Your task to perform on an android device: turn on notifications settings in the gmail app Image 0: 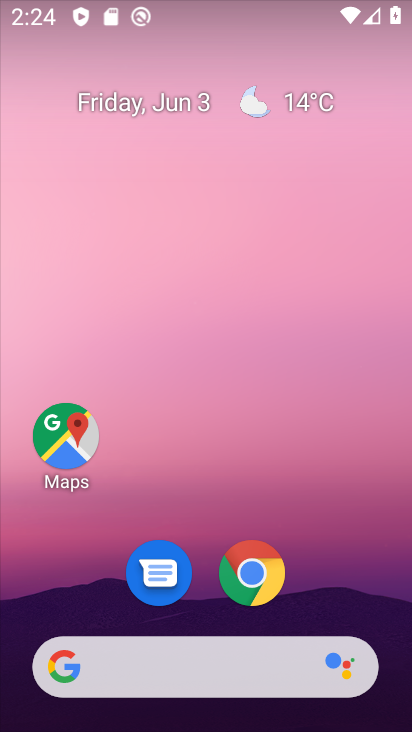
Step 0: drag from (167, 667) to (208, 44)
Your task to perform on an android device: turn on notifications settings in the gmail app Image 1: 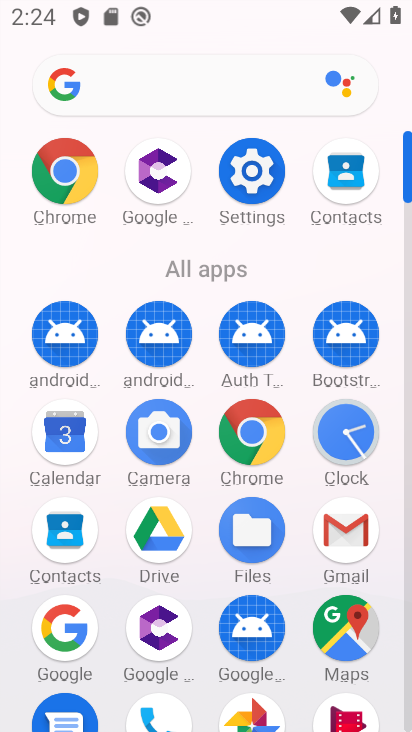
Step 1: click (358, 540)
Your task to perform on an android device: turn on notifications settings in the gmail app Image 2: 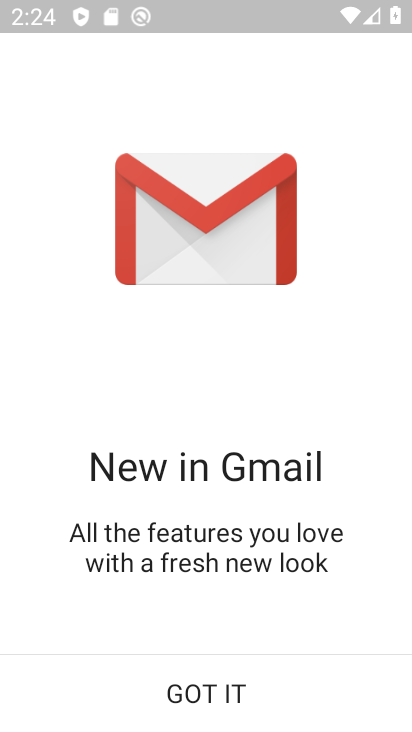
Step 2: click (282, 693)
Your task to perform on an android device: turn on notifications settings in the gmail app Image 3: 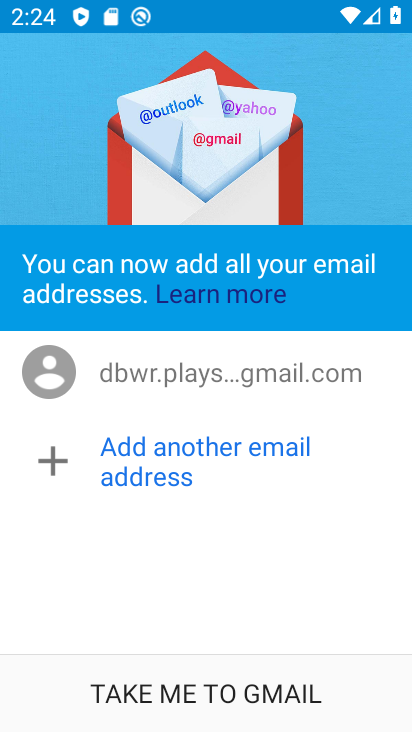
Step 3: click (282, 694)
Your task to perform on an android device: turn on notifications settings in the gmail app Image 4: 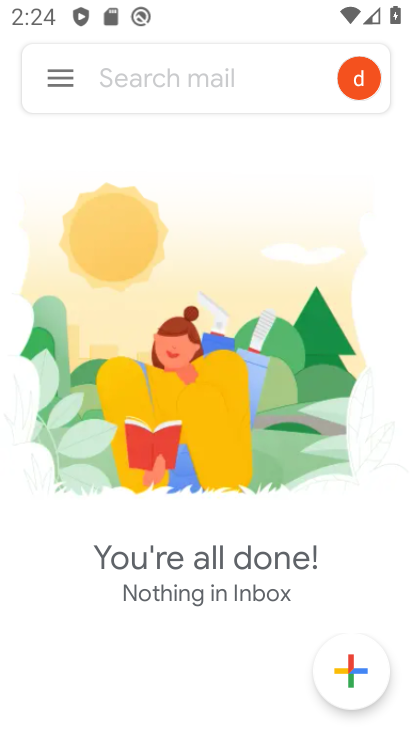
Step 4: click (46, 84)
Your task to perform on an android device: turn on notifications settings in the gmail app Image 5: 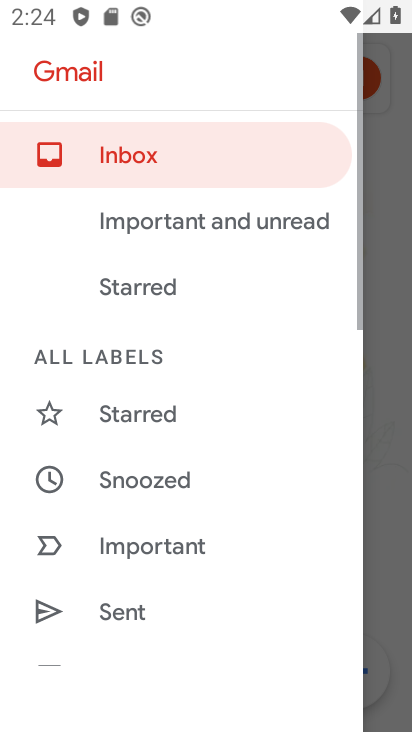
Step 5: drag from (159, 611) to (163, 146)
Your task to perform on an android device: turn on notifications settings in the gmail app Image 6: 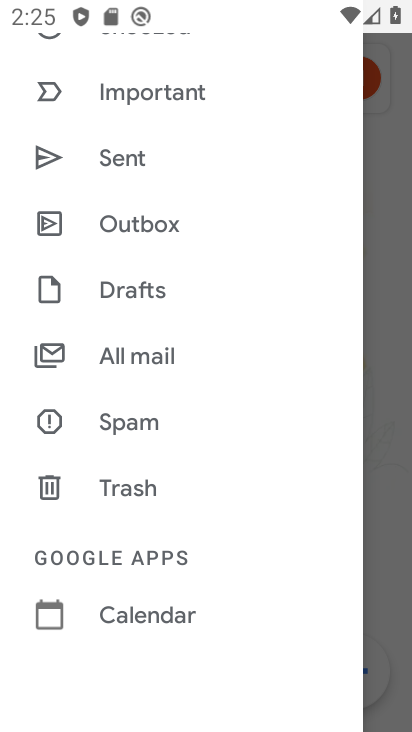
Step 6: drag from (161, 623) to (194, 224)
Your task to perform on an android device: turn on notifications settings in the gmail app Image 7: 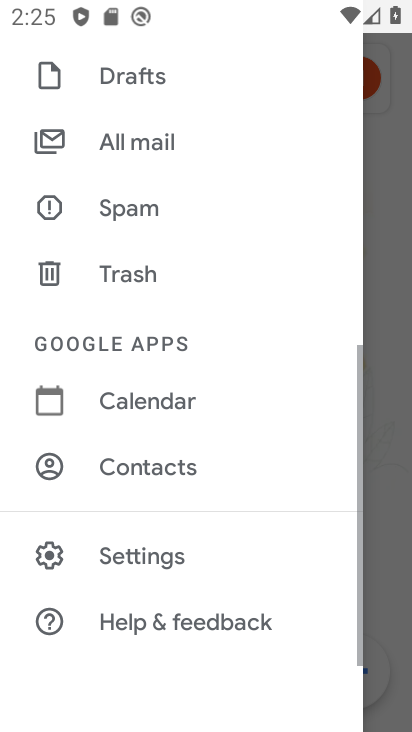
Step 7: click (179, 552)
Your task to perform on an android device: turn on notifications settings in the gmail app Image 8: 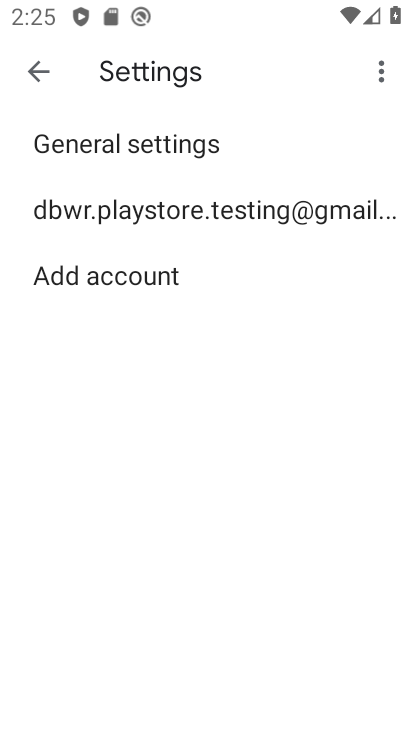
Step 8: click (221, 207)
Your task to perform on an android device: turn on notifications settings in the gmail app Image 9: 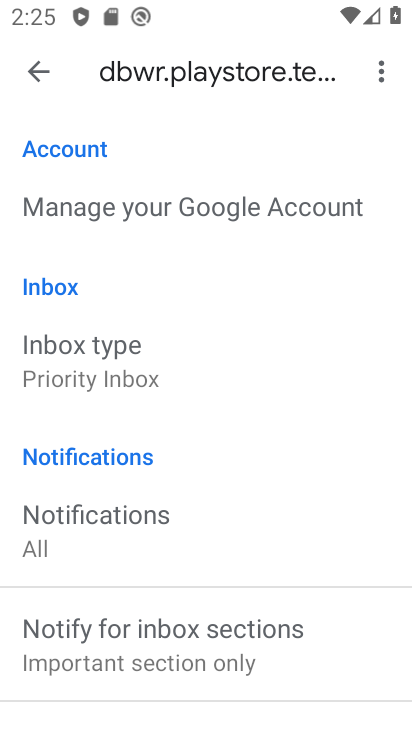
Step 9: drag from (178, 661) to (155, 127)
Your task to perform on an android device: turn on notifications settings in the gmail app Image 10: 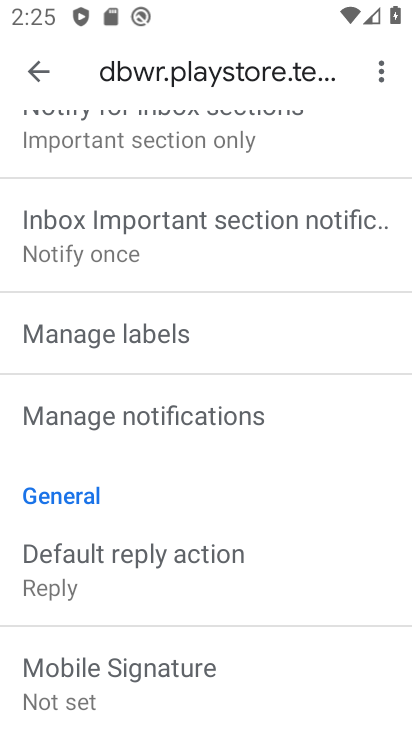
Step 10: click (173, 384)
Your task to perform on an android device: turn on notifications settings in the gmail app Image 11: 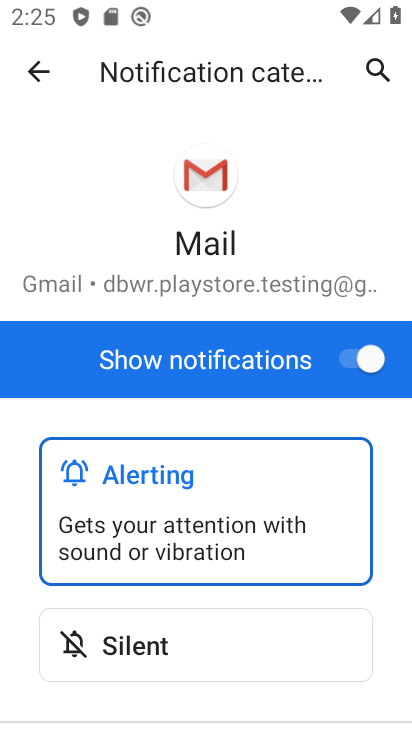
Step 11: task complete